Your task to perform on an android device: check google app version Image 0: 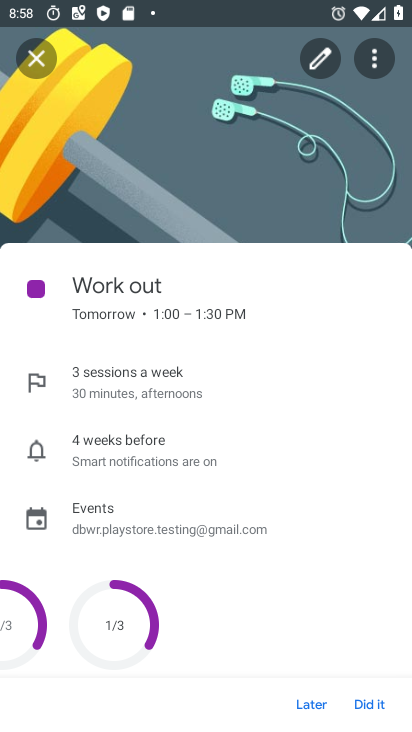
Step 0: press back button
Your task to perform on an android device: check google app version Image 1: 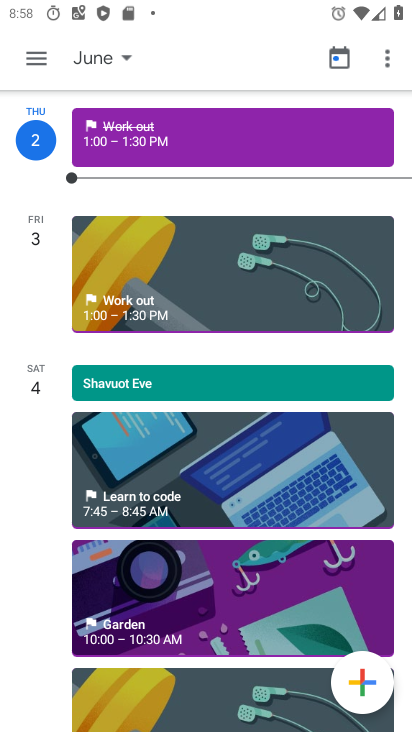
Step 1: press home button
Your task to perform on an android device: check google app version Image 2: 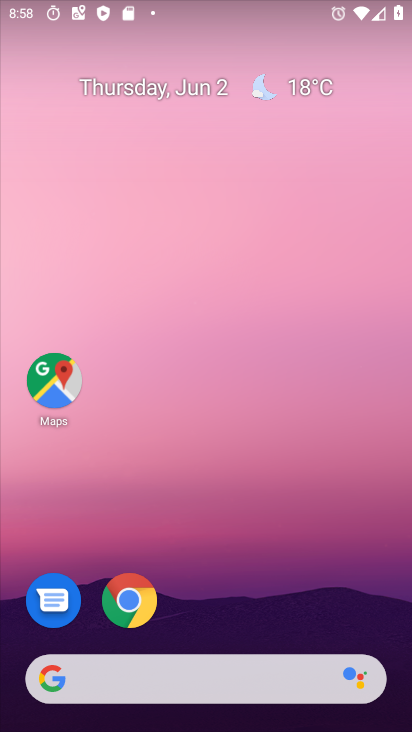
Step 2: drag from (315, 605) to (324, 322)
Your task to perform on an android device: check google app version Image 3: 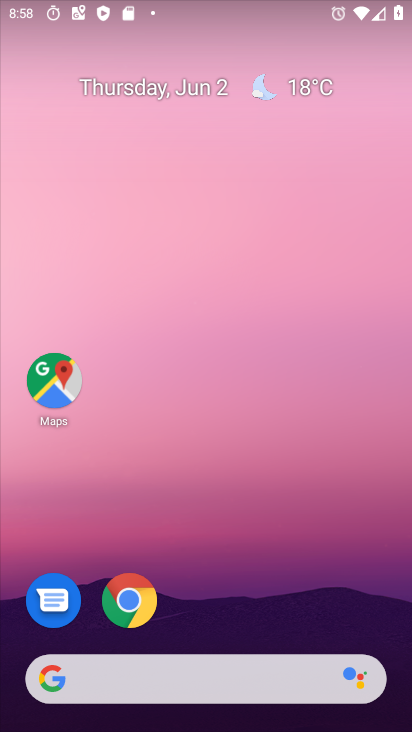
Step 3: drag from (353, 585) to (348, 223)
Your task to perform on an android device: check google app version Image 4: 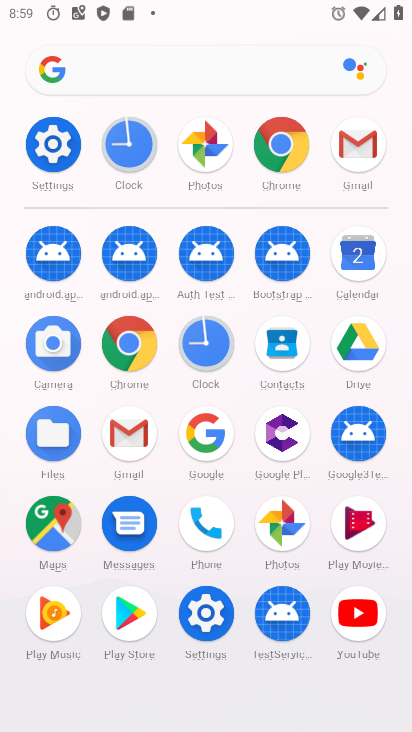
Step 4: click (212, 447)
Your task to perform on an android device: check google app version Image 5: 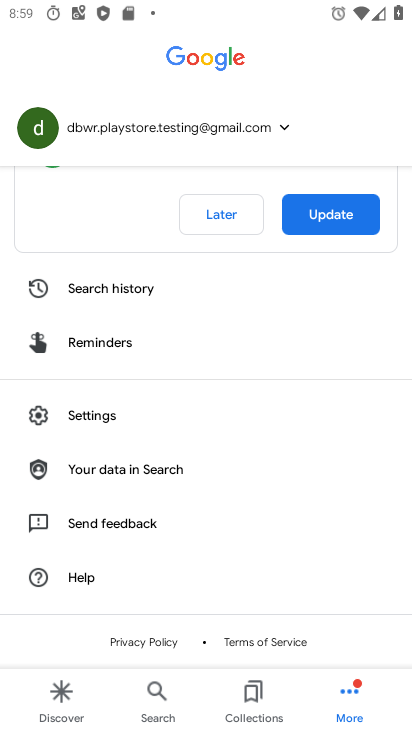
Step 5: click (120, 421)
Your task to perform on an android device: check google app version Image 6: 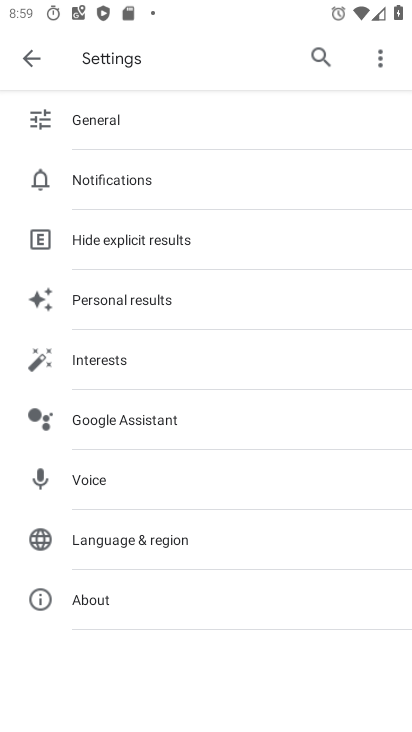
Step 6: click (137, 596)
Your task to perform on an android device: check google app version Image 7: 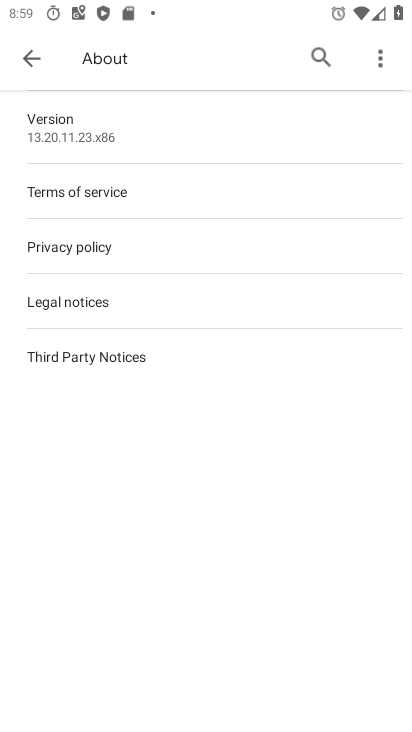
Step 7: task complete